Your task to perform on an android device: turn off priority inbox in the gmail app Image 0: 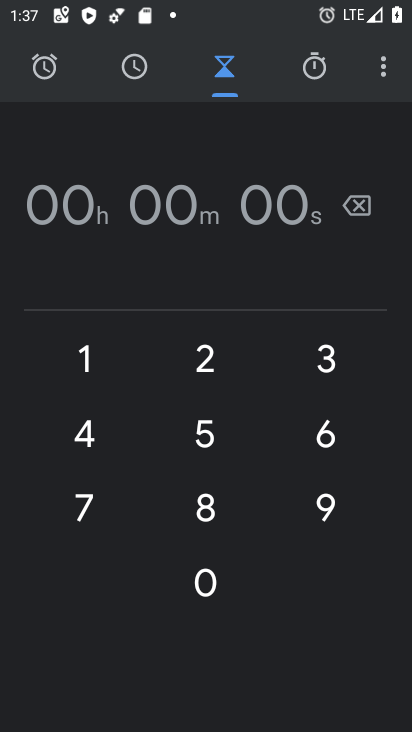
Step 0: press home button
Your task to perform on an android device: turn off priority inbox in the gmail app Image 1: 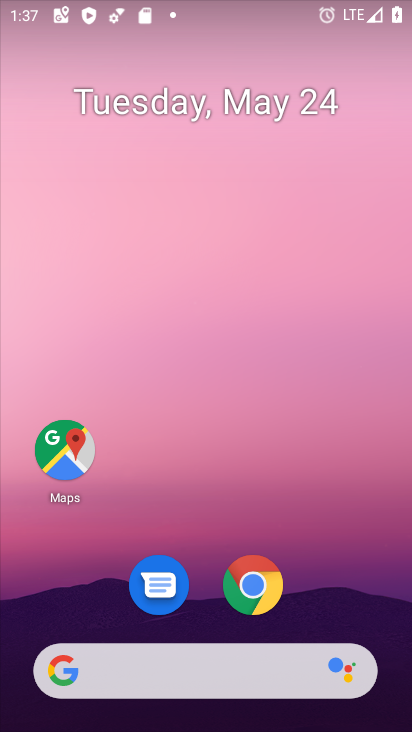
Step 1: drag from (224, 476) to (271, 38)
Your task to perform on an android device: turn off priority inbox in the gmail app Image 2: 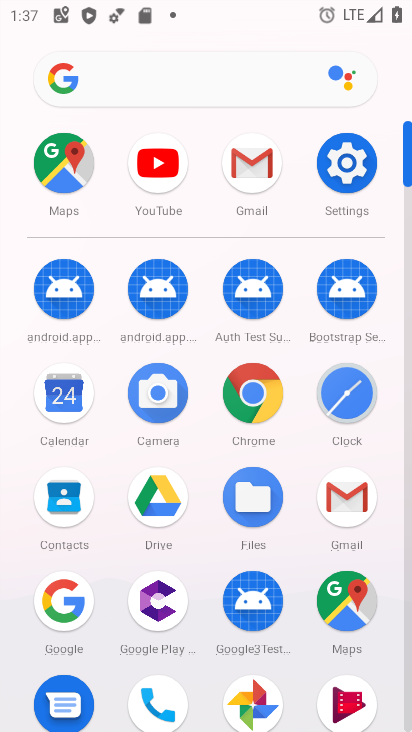
Step 2: click (246, 159)
Your task to perform on an android device: turn off priority inbox in the gmail app Image 3: 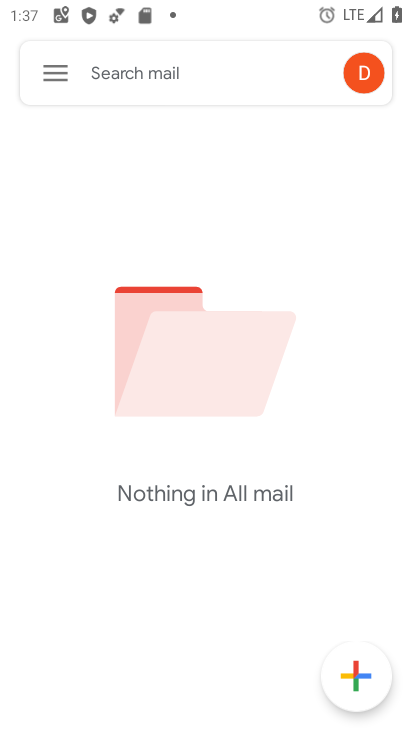
Step 3: click (54, 63)
Your task to perform on an android device: turn off priority inbox in the gmail app Image 4: 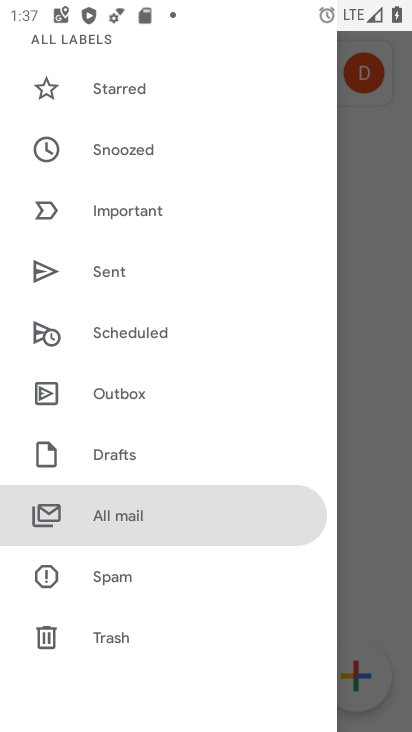
Step 4: drag from (191, 596) to (205, 268)
Your task to perform on an android device: turn off priority inbox in the gmail app Image 5: 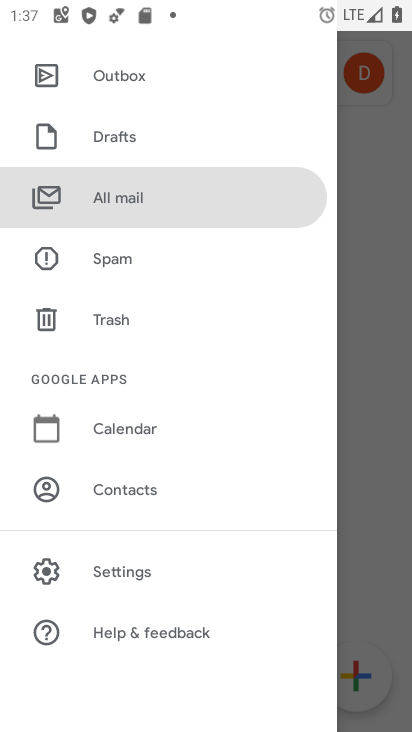
Step 5: click (142, 574)
Your task to perform on an android device: turn off priority inbox in the gmail app Image 6: 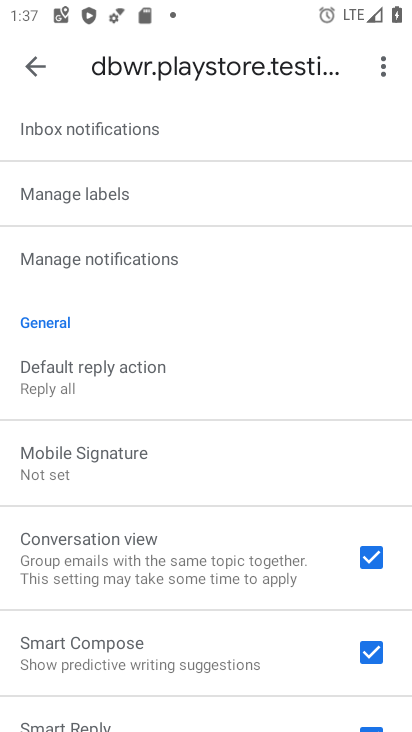
Step 6: drag from (217, 281) to (270, 626)
Your task to perform on an android device: turn off priority inbox in the gmail app Image 7: 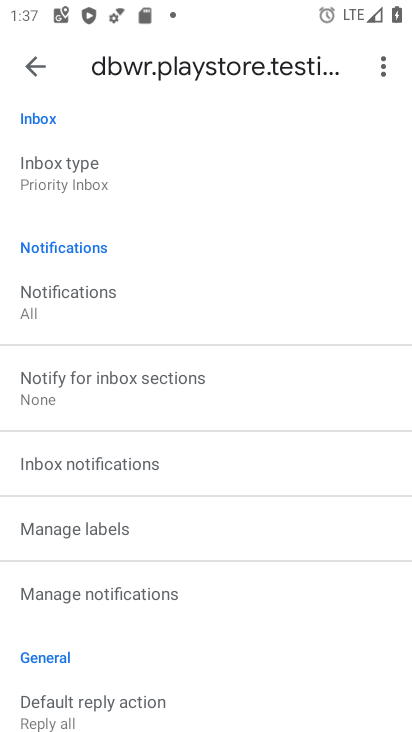
Step 7: click (51, 176)
Your task to perform on an android device: turn off priority inbox in the gmail app Image 8: 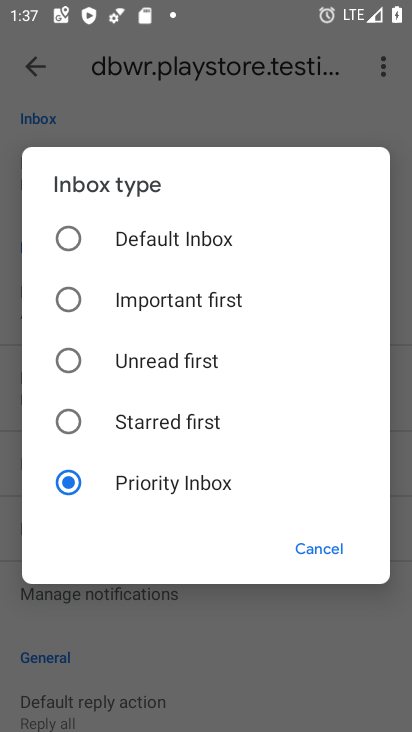
Step 8: click (64, 236)
Your task to perform on an android device: turn off priority inbox in the gmail app Image 9: 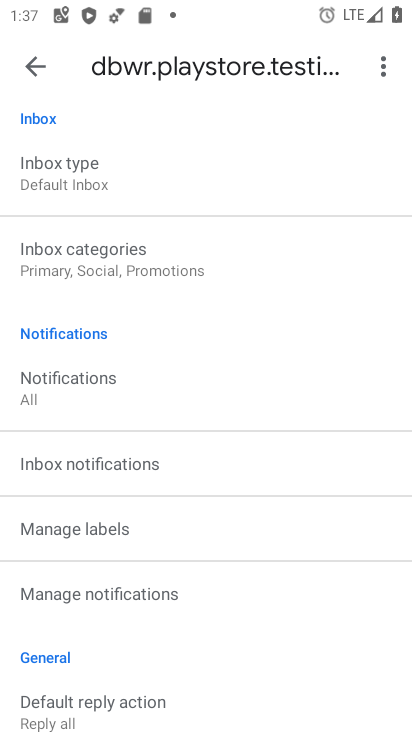
Step 9: task complete